Your task to perform on an android device: add a contact in the contacts app Image 0: 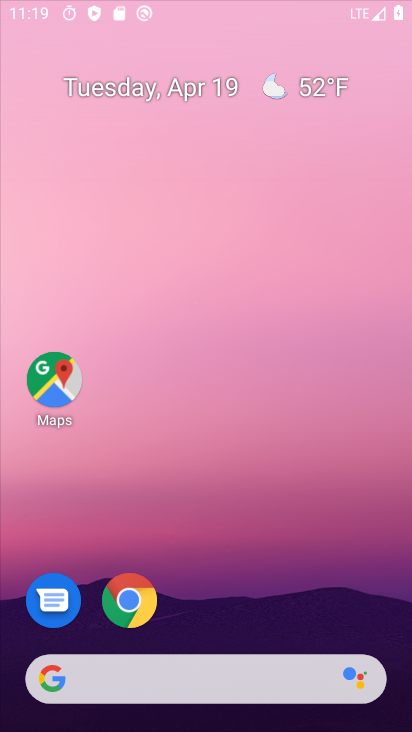
Step 0: drag from (200, 647) to (198, 3)
Your task to perform on an android device: add a contact in the contacts app Image 1: 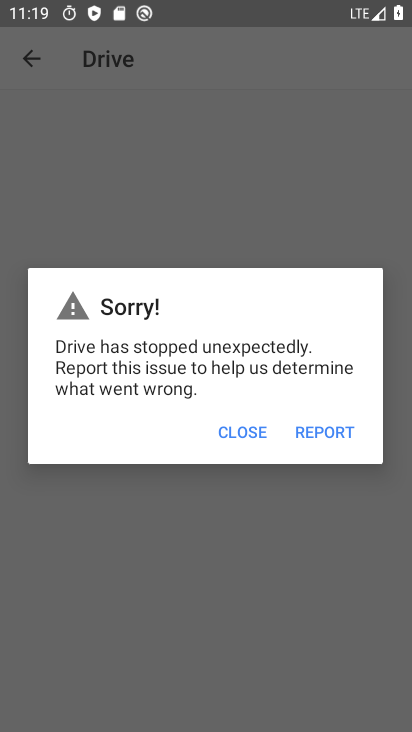
Step 1: press home button
Your task to perform on an android device: add a contact in the contacts app Image 2: 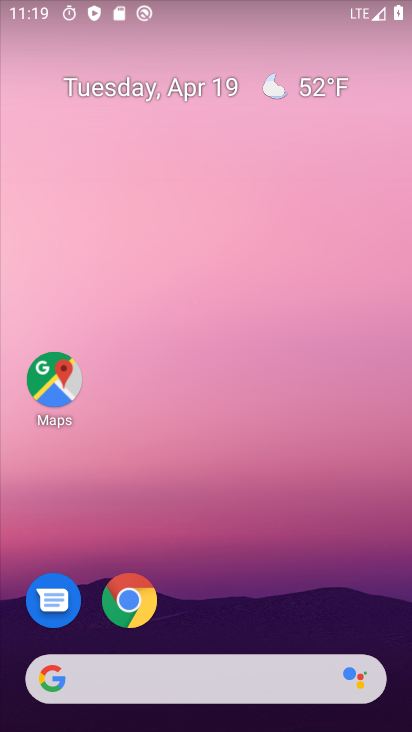
Step 2: drag from (189, 645) to (230, 2)
Your task to perform on an android device: add a contact in the contacts app Image 3: 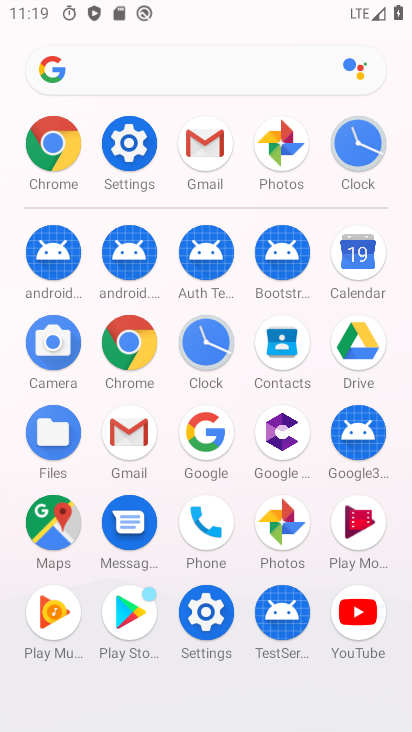
Step 3: click (187, 517)
Your task to perform on an android device: add a contact in the contacts app Image 4: 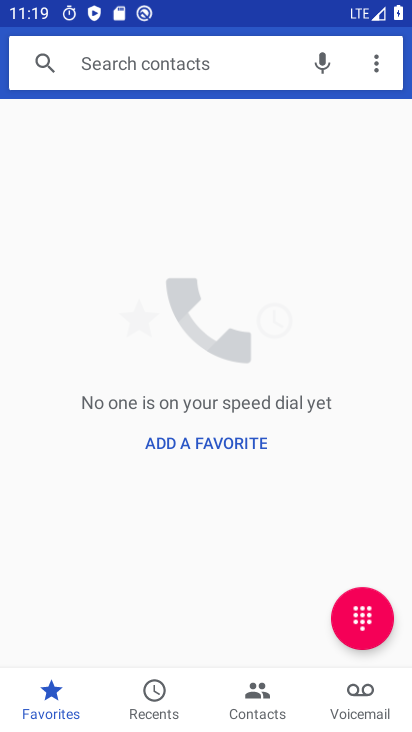
Step 4: click (248, 704)
Your task to perform on an android device: add a contact in the contacts app Image 5: 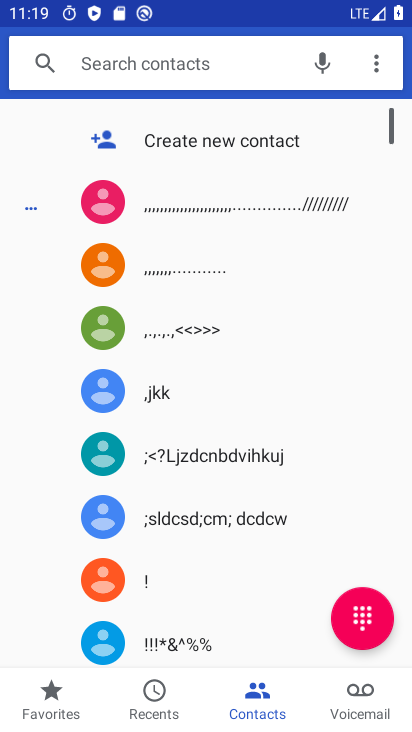
Step 5: click (228, 136)
Your task to perform on an android device: add a contact in the contacts app Image 6: 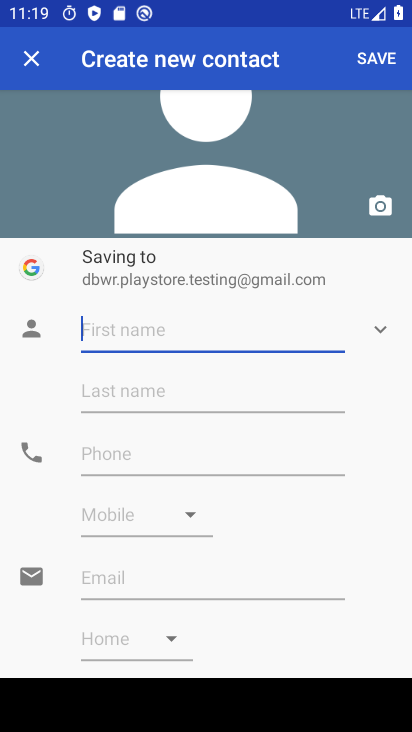
Step 6: type "hn"
Your task to perform on an android device: add a contact in the contacts app Image 7: 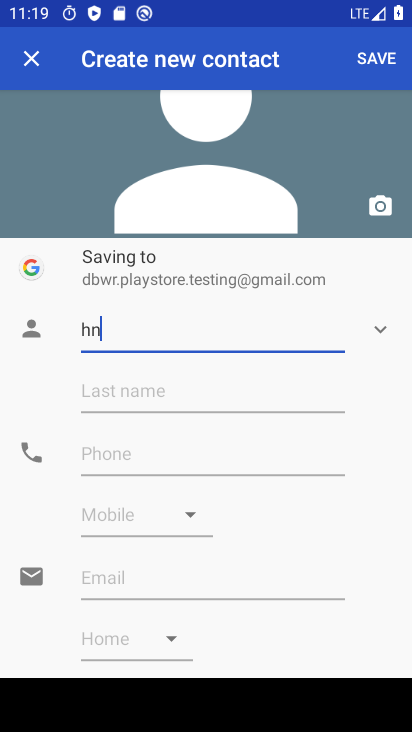
Step 7: click (205, 449)
Your task to perform on an android device: add a contact in the contacts app Image 8: 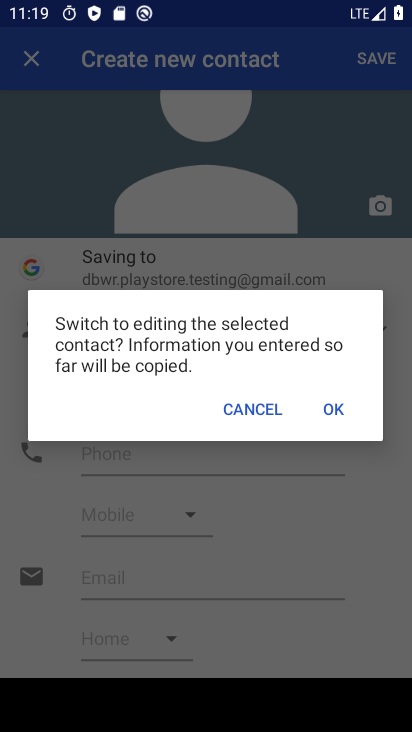
Step 8: click (330, 398)
Your task to perform on an android device: add a contact in the contacts app Image 9: 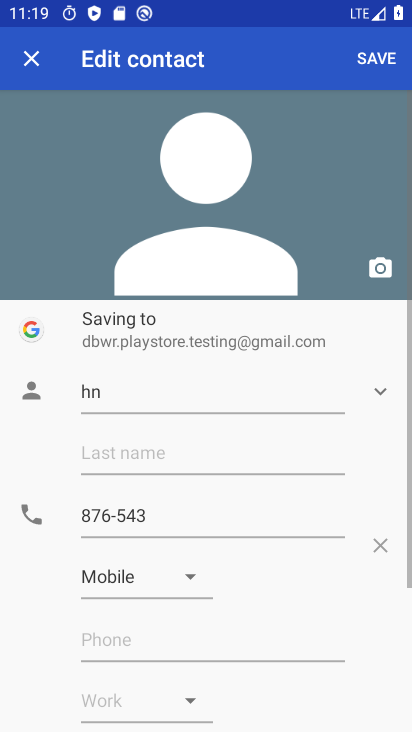
Step 9: click (348, 60)
Your task to perform on an android device: add a contact in the contacts app Image 10: 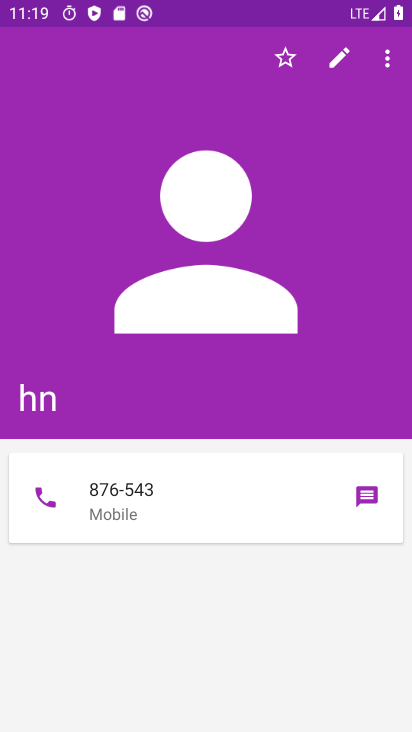
Step 10: task complete